Your task to perform on an android device: Open Wikipedia Image 0: 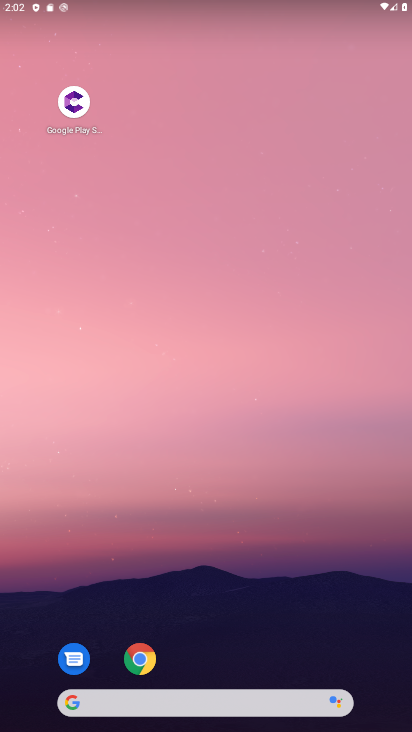
Step 0: click (152, 670)
Your task to perform on an android device: Open Wikipedia Image 1: 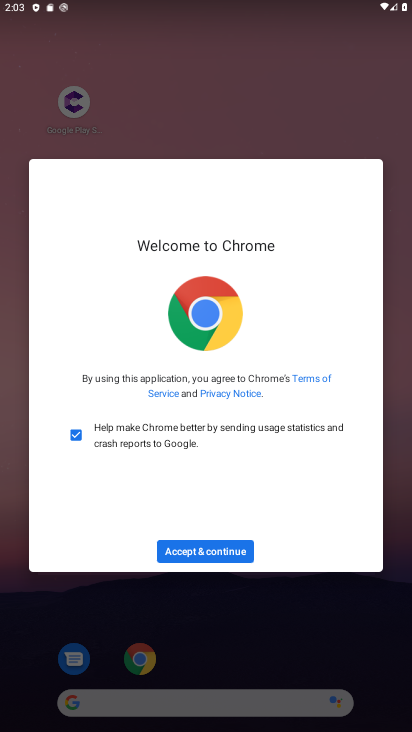
Step 1: click (193, 560)
Your task to perform on an android device: Open Wikipedia Image 2: 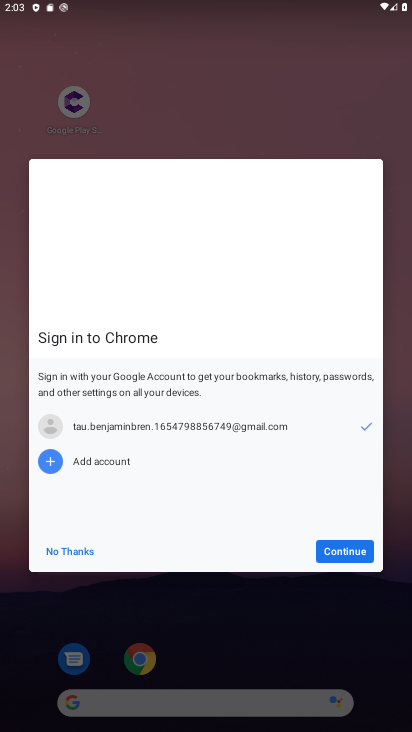
Step 2: click (336, 556)
Your task to perform on an android device: Open Wikipedia Image 3: 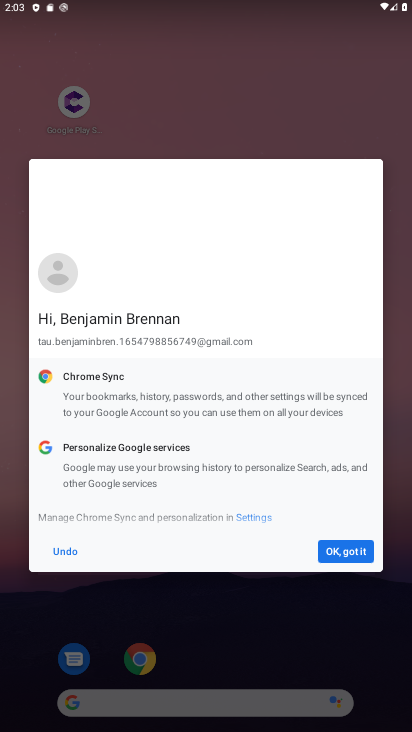
Step 3: click (336, 556)
Your task to perform on an android device: Open Wikipedia Image 4: 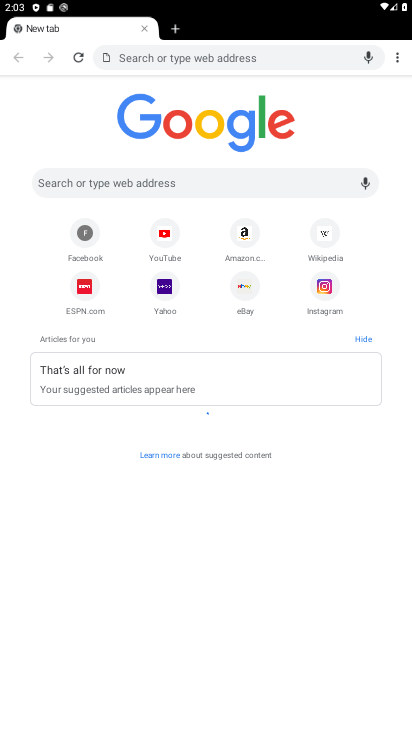
Step 4: click (320, 249)
Your task to perform on an android device: Open Wikipedia Image 5: 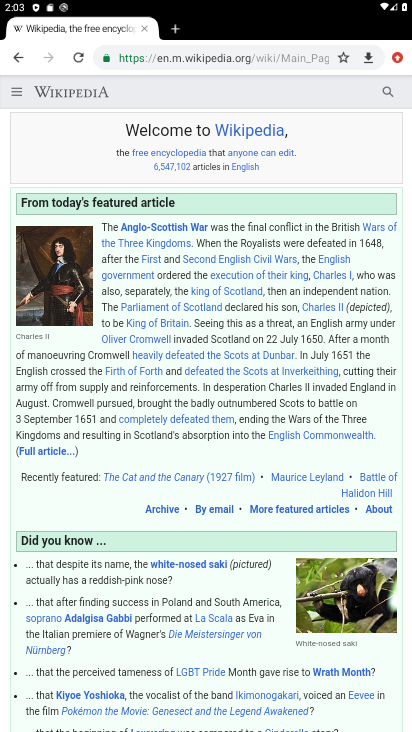
Step 5: press home button
Your task to perform on an android device: Open Wikipedia Image 6: 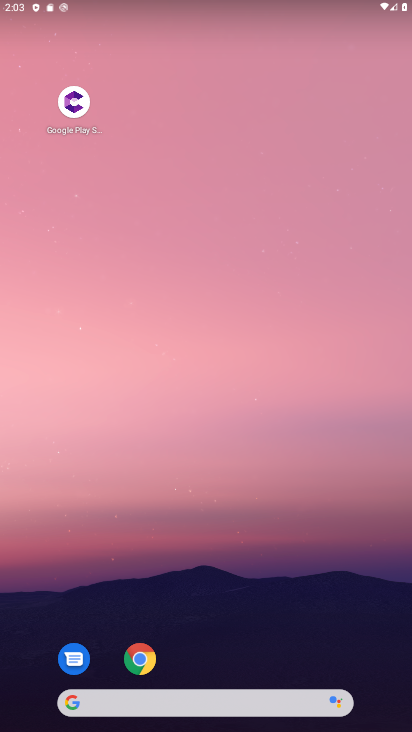
Step 6: click (131, 678)
Your task to perform on an android device: Open Wikipedia Image 7: 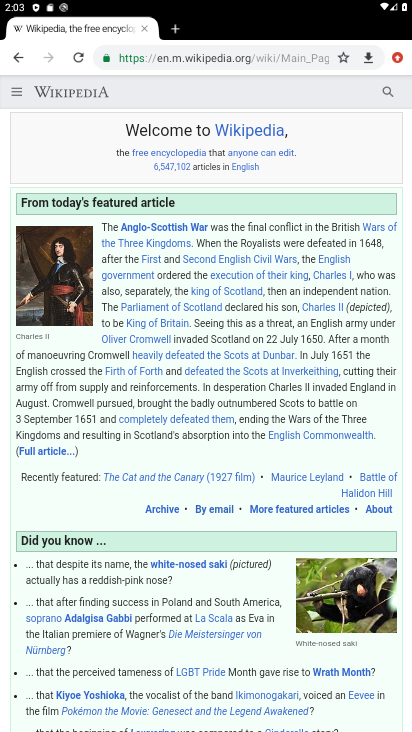
Step 7: task complete